Your task to perform on an android device: open app "The Home Depot" (install if not already installed) Image 0: 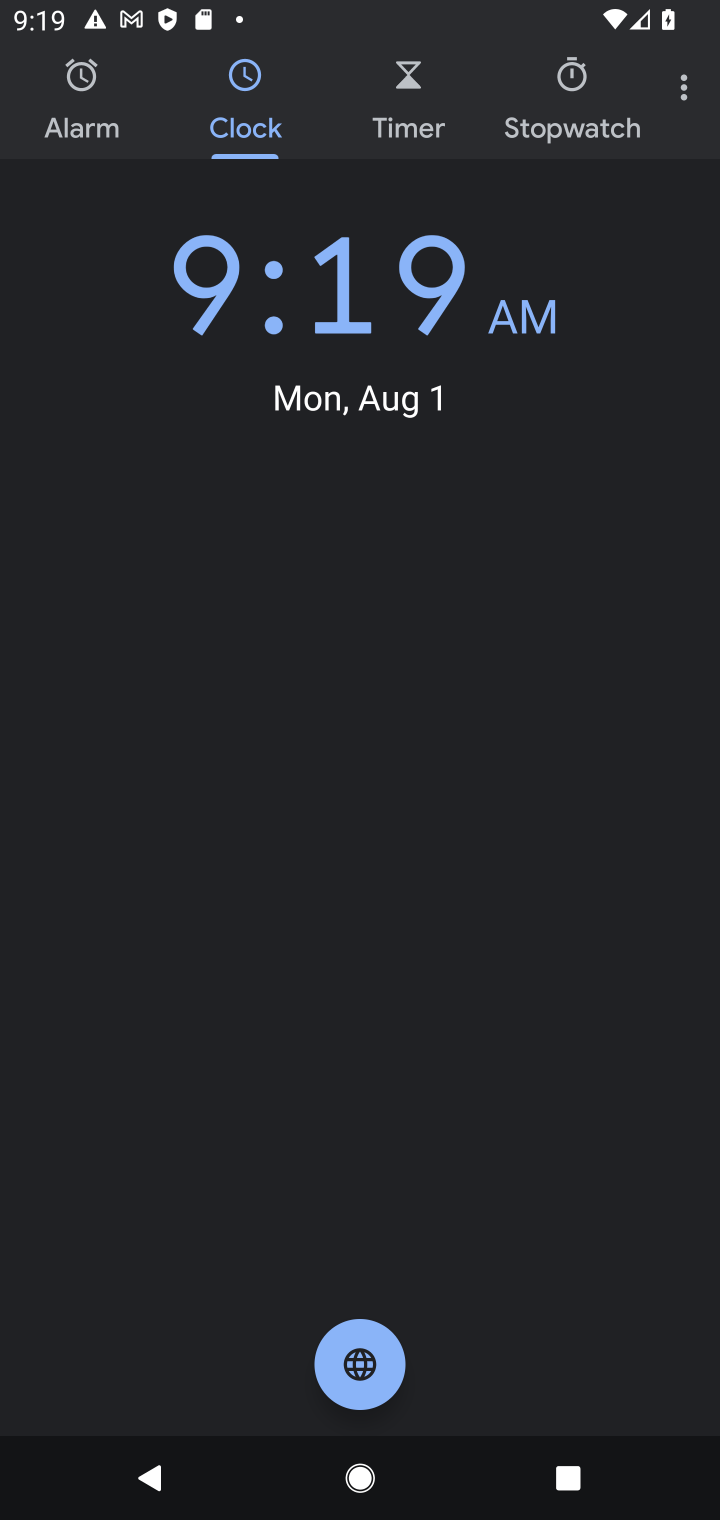
Step 0: press home button
Your task to perform on an android device: open app "The Home Depot" (install if not already installed) Image 1: 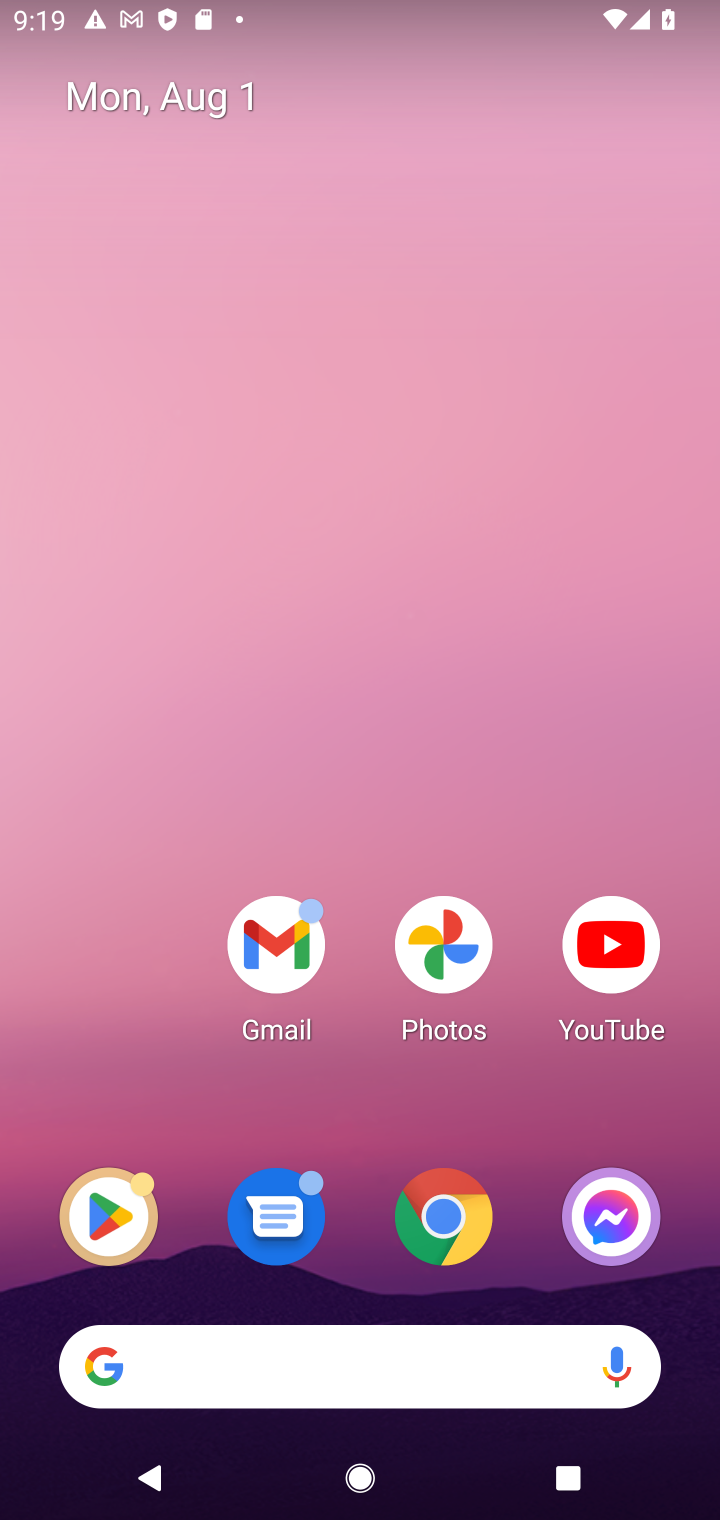
Step 1: click (124, 1219)
Your task to perform on an android device: open app "The Home Depot" (install if not already installed) Image 2: 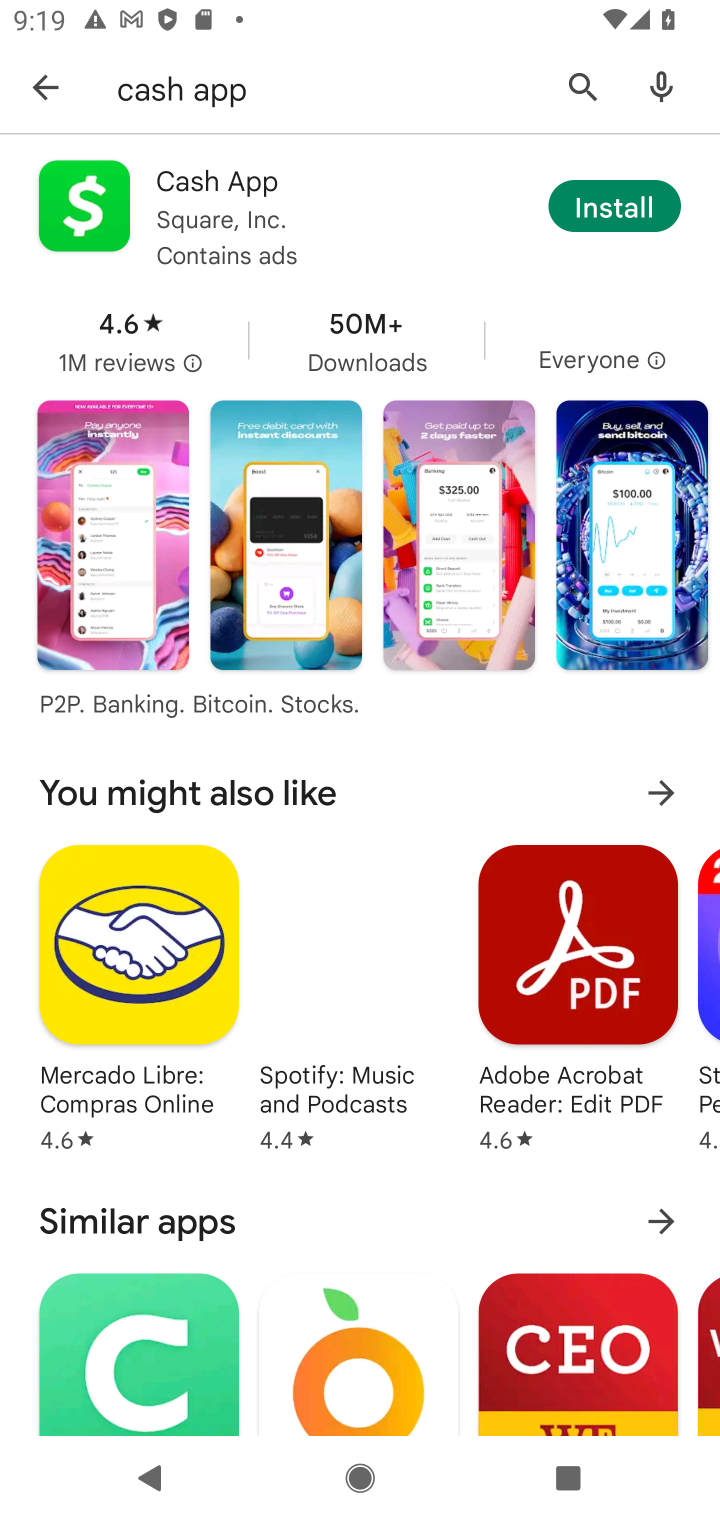
Step 2: click (574, 74)
Your task to perform on an android device: open app "The Home Depot" (install if not already installed) Image 3: 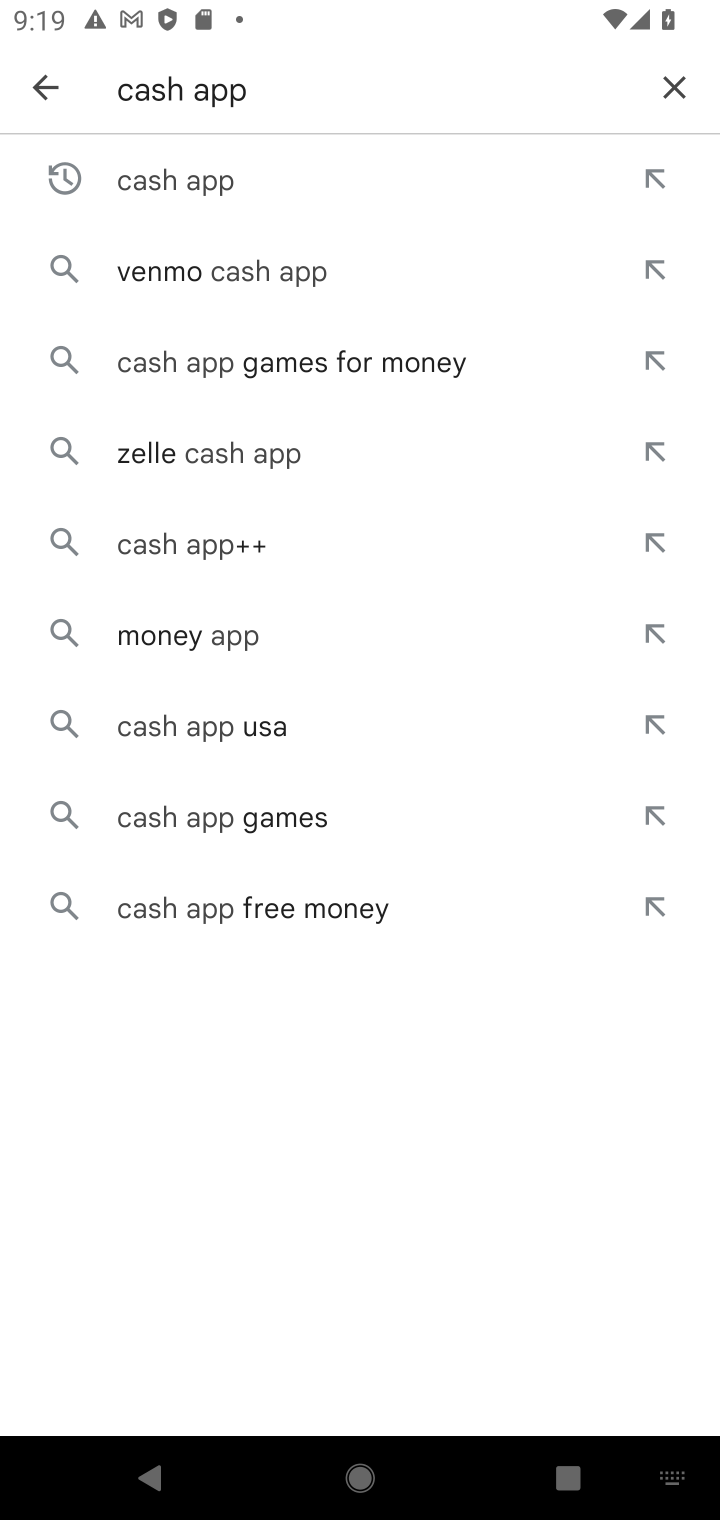
Step 3: click (669, 90)
Your task to perform on an android device: open app "The Home Depot" (install if not already installed) Image 4: 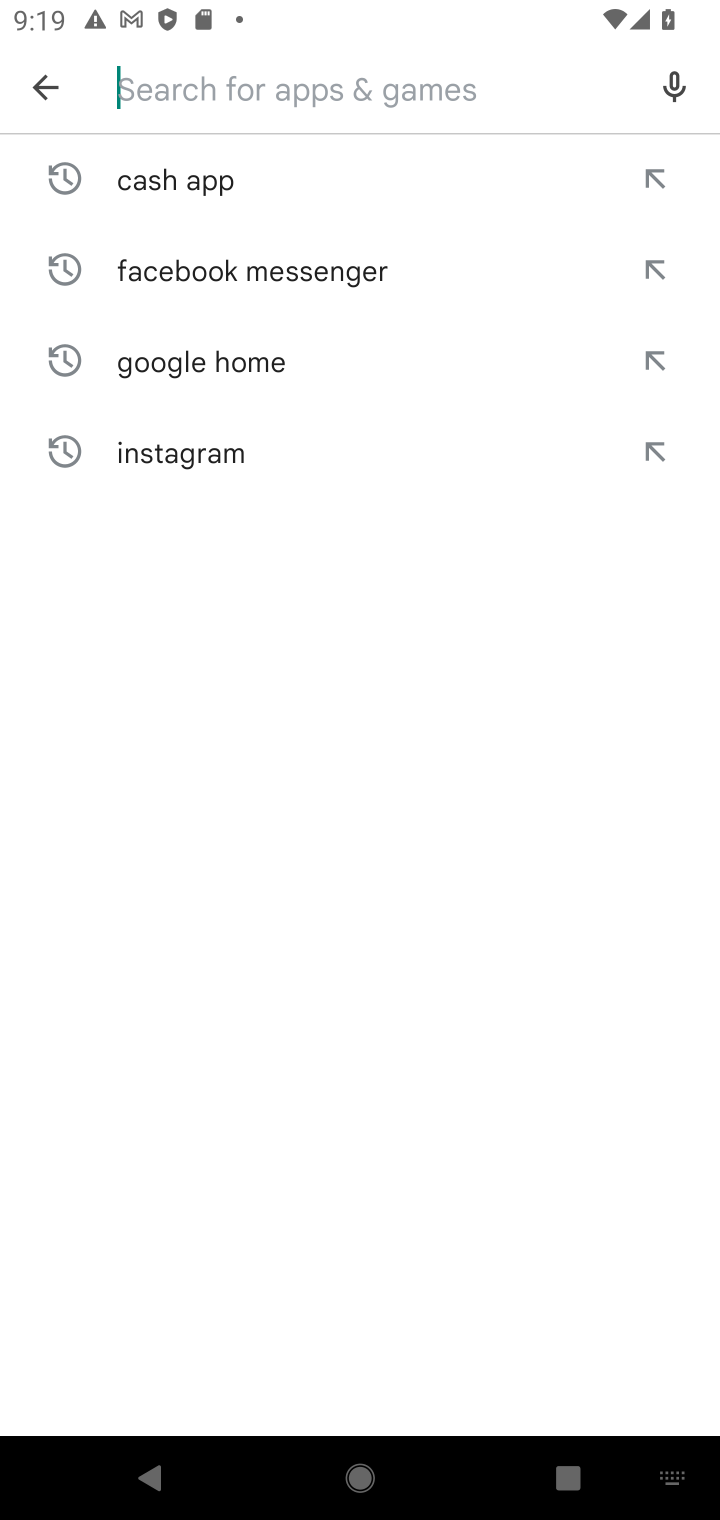
Step 4: type "The Home Depot"
Your task to perform on an android device: open app "The Home Depot" (install if not already installed) Image 5: 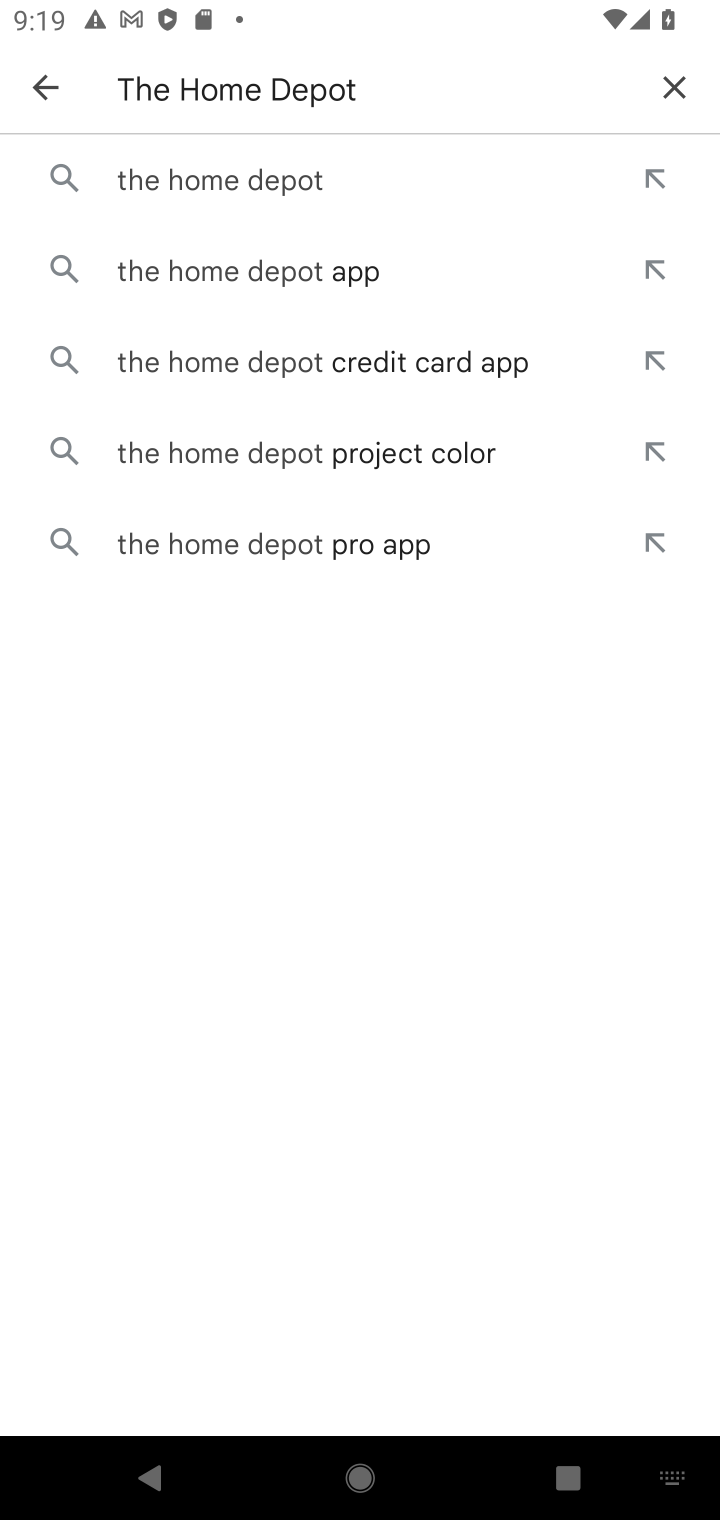
Step 5: click (152, 191)
Your task to perform on an android device: open app "The Home Depot" (install if not already installed) Image 6: 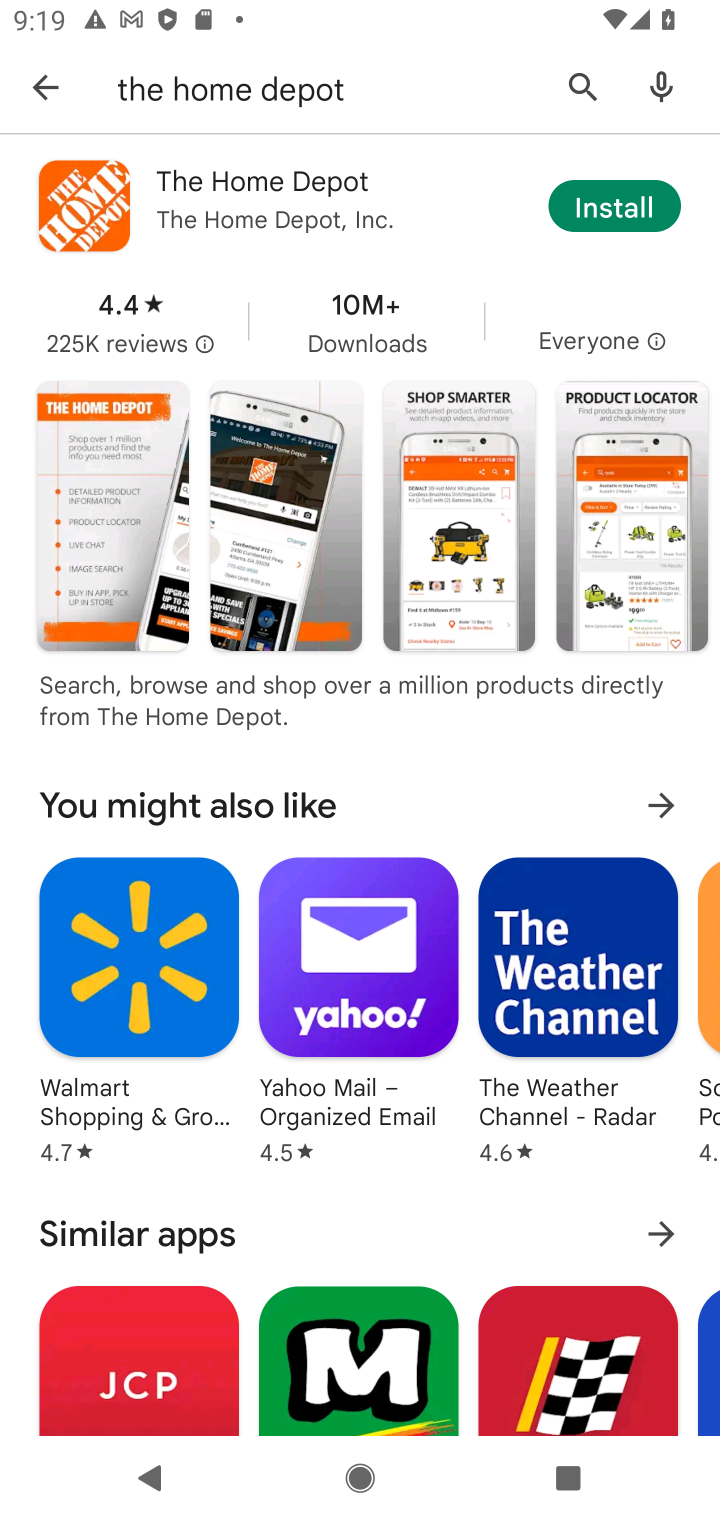
Step 6: click (682, 220)
Your task to perform on an android device: open app "The Home Depot" (install if not already installed) Image 7: 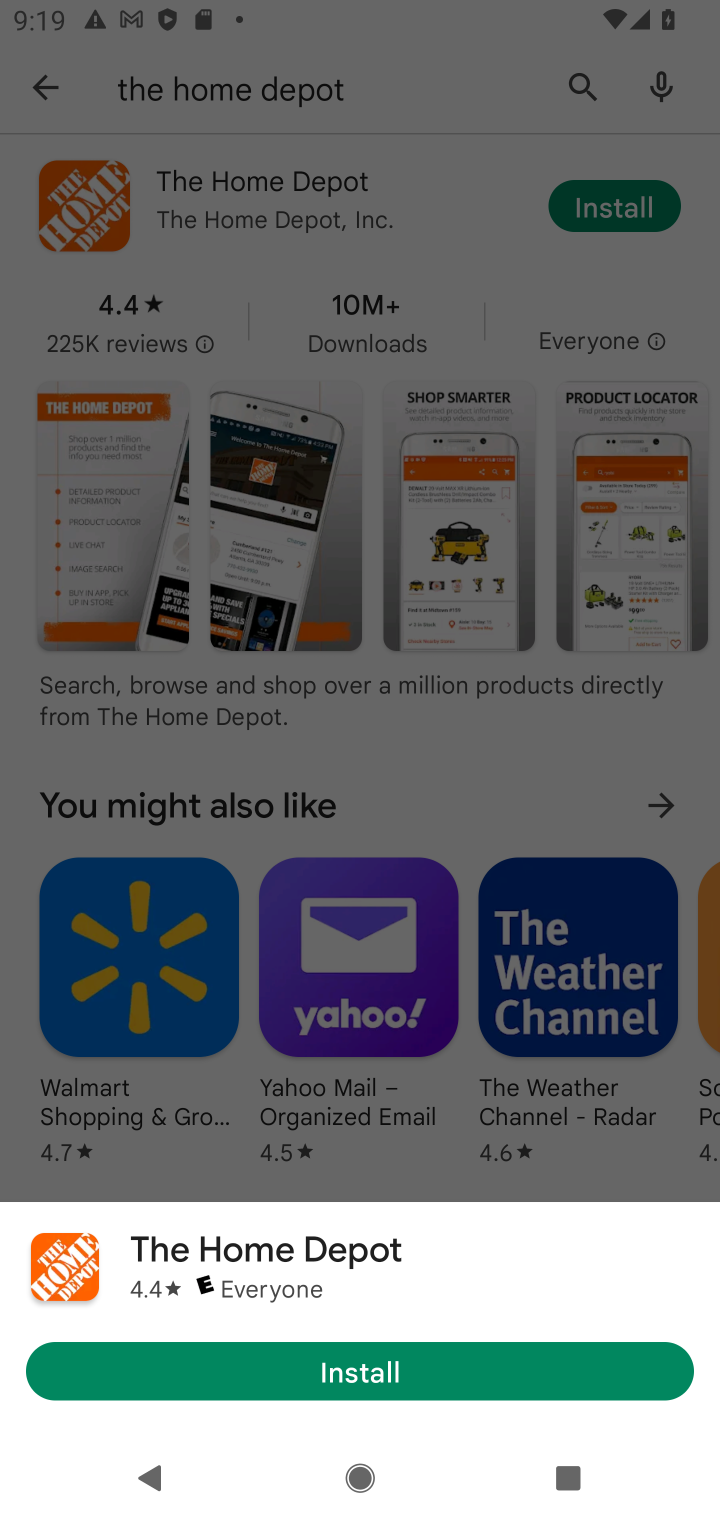
Step 7: click (316, 1358)
Your task to perform on an android device: open app "The Home Depot" (install if not already installed) Image 8: 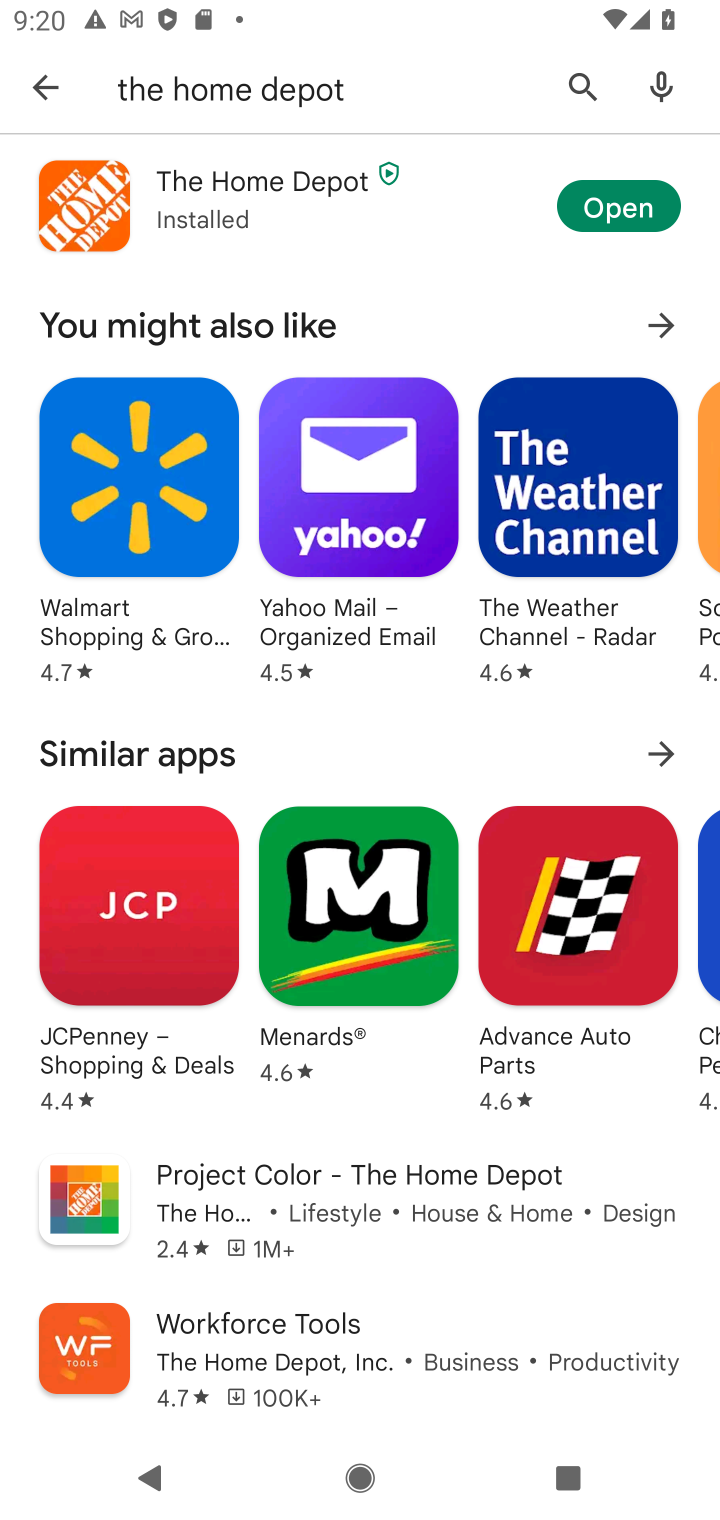
Step 8: click (622, 204)
Your task to perform on an android device: open app "The Home Depot" (install if not already installed) Image 9: 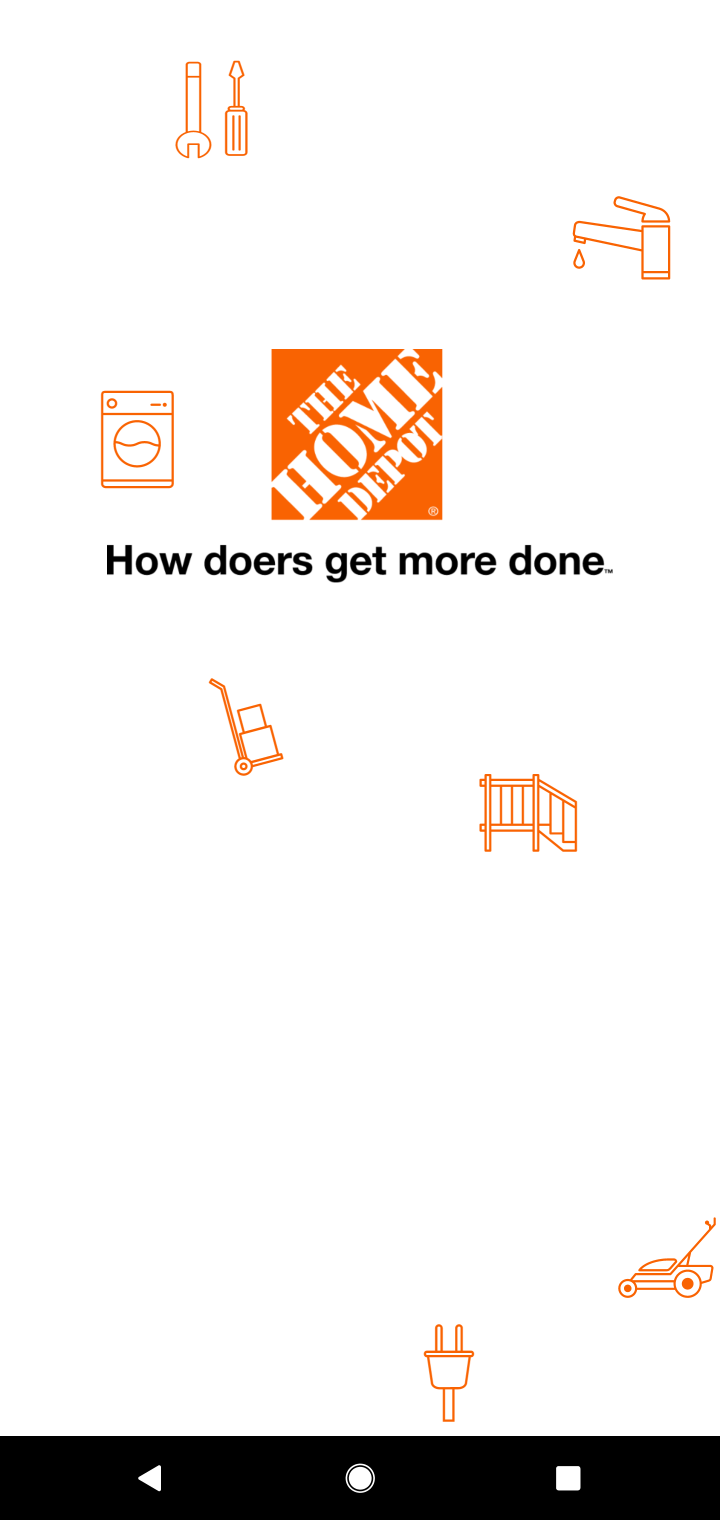
Step 9: task complete